Your task to perform on an android device: change the clock display to digital Image 0: 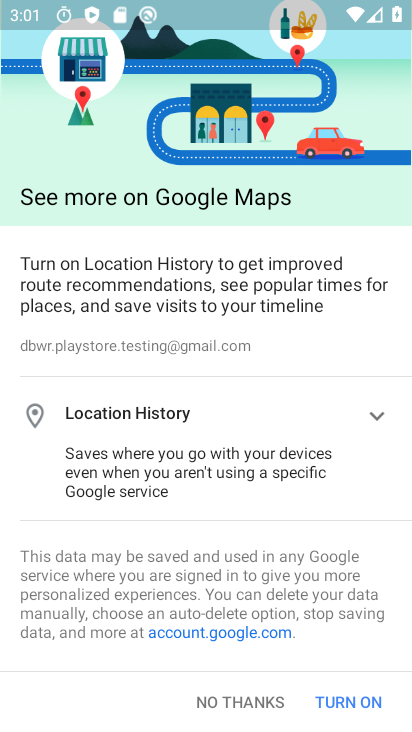
Step 0: press home button
Your task to perform on an android device: change the clock display to digital Image 1: 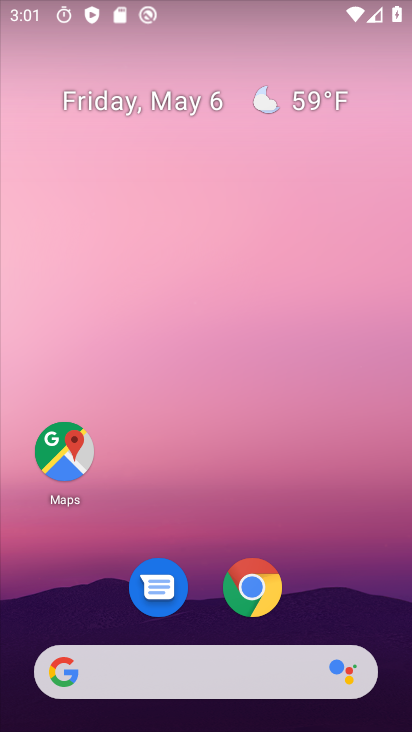
Step 1: drag from (260, 504) to (237, 19)
Your task to perform on an android device: change the clock display to digital Image 2: 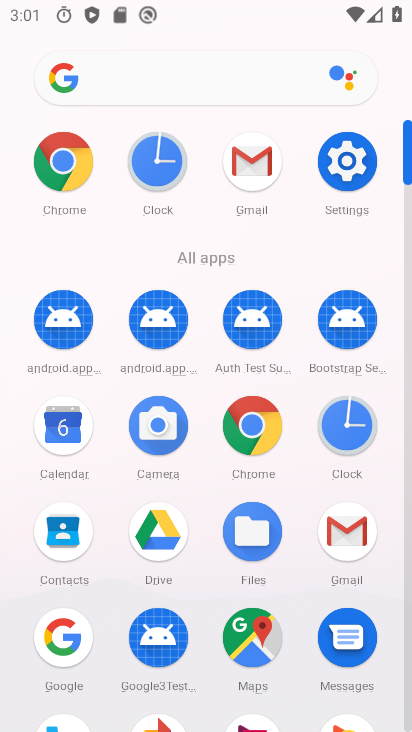
Step 2: click (170, 155)
Your task to perform on an android device: change the clock display to digital Image 3: 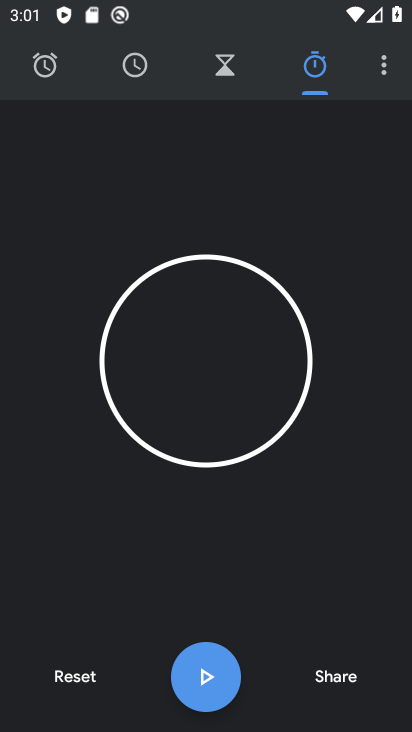
Step 3: click (379, 65)
Your task to perform on an android device: change the clock display to digital Image 4: 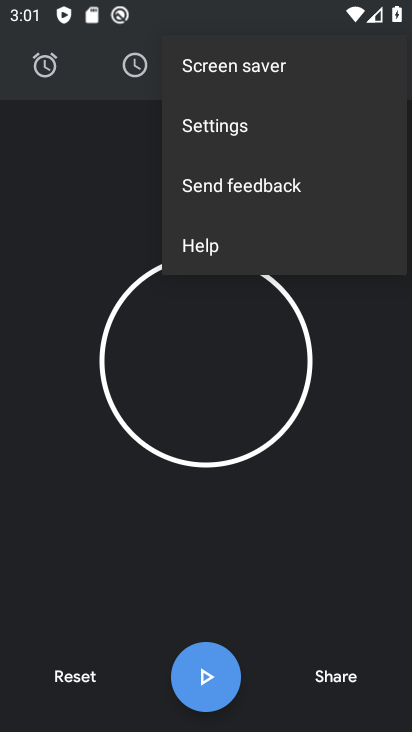
Step 4: click (284, 132)
Your task to perform on an android device: change the clock display to digital Image 5: 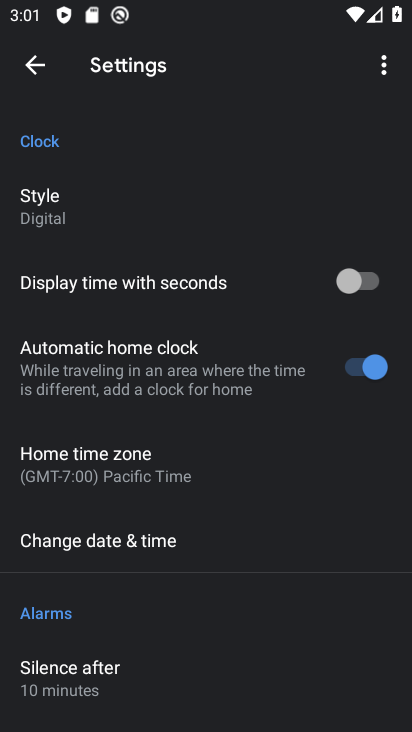
Step 5: click (106, 211)
Your task to perform on an android device: change the clock display to digital Image 6: 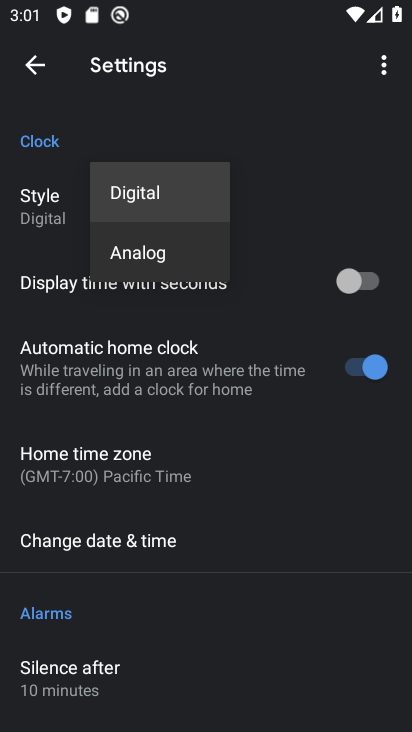
Step 6: click (145, 185)
Your task to perform on an android device: change the clock display to digital Image 7: 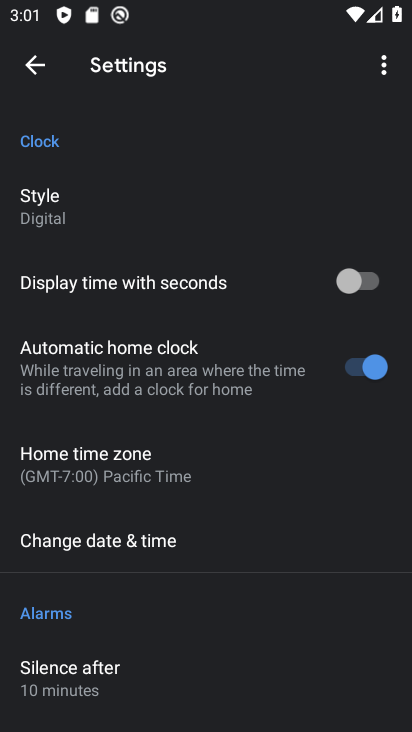
Step 7: click (35, 69)
Your task to perform on an android device: change the clock display to digital Image 8: 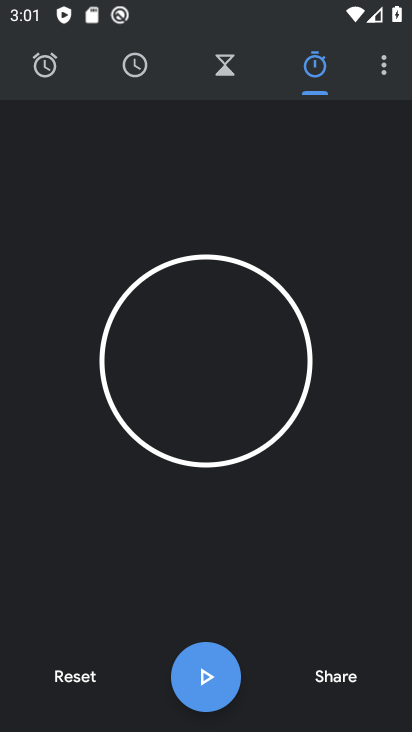
Step 8: click (132, 62)
Your task to perform on an android device: change the clock display to digital Image 9: 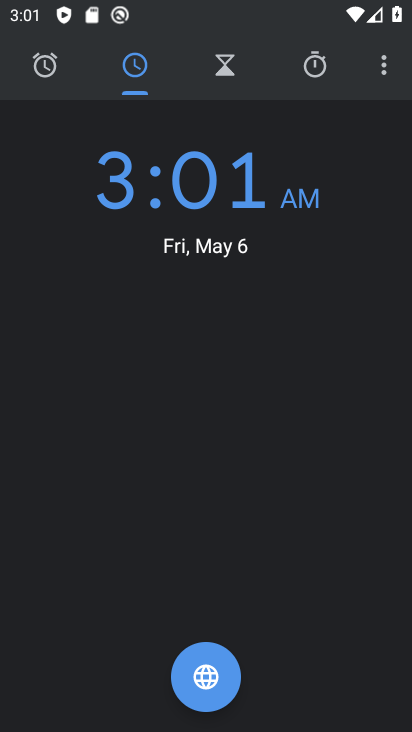
Step 9: task complete